Your task to perform on an android device: Go to settings Image 0: 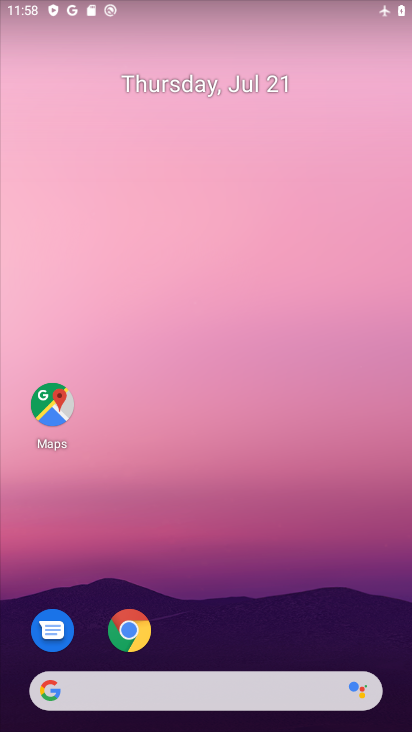
Step 0: drag from (210, 647) to (296, 25)
Your task to perform on an android device: Go to settings Image 1: 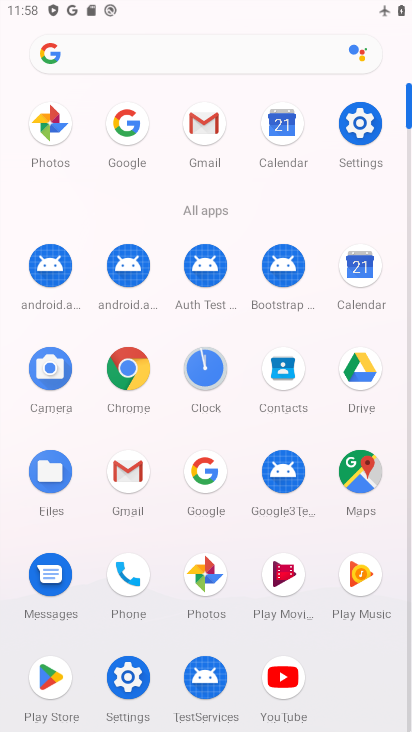
Step 1: click (338, 137)
Your task to perform on an android device: Go to settings Image 2: 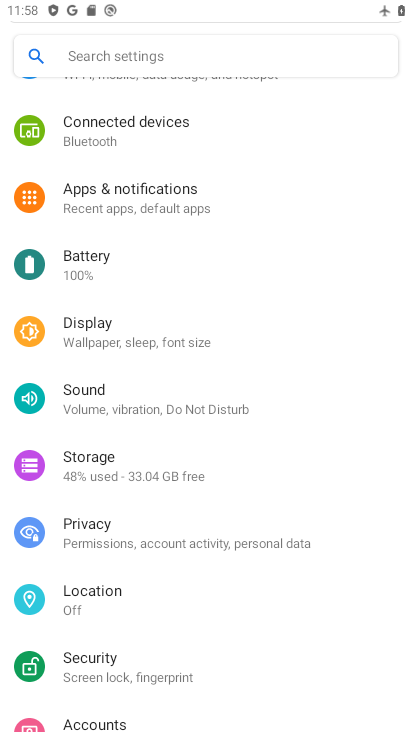
Step 2: task complete